Your task to perform on an android device: Go to location settings Image 0: 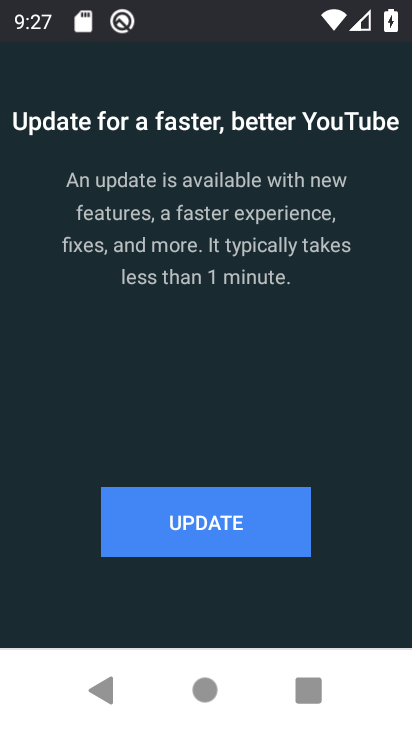
Step 0: drag from (315, 514) to (322, 165)
Your task to perform on an android device: Go to location settings Image 1: 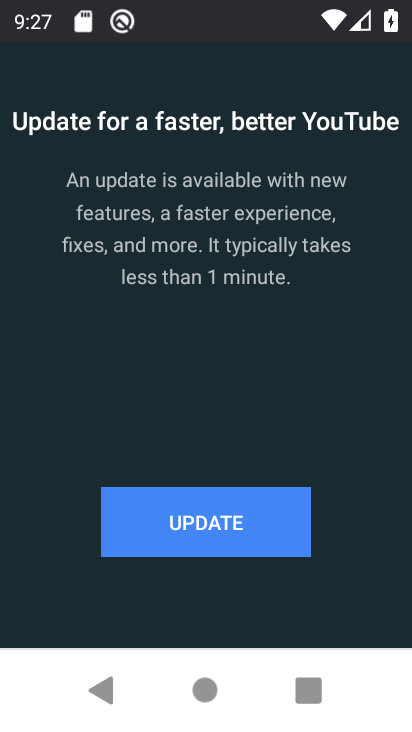
Step 1: press home button
Your task to perform on an android device: Go to location settings Image 2: 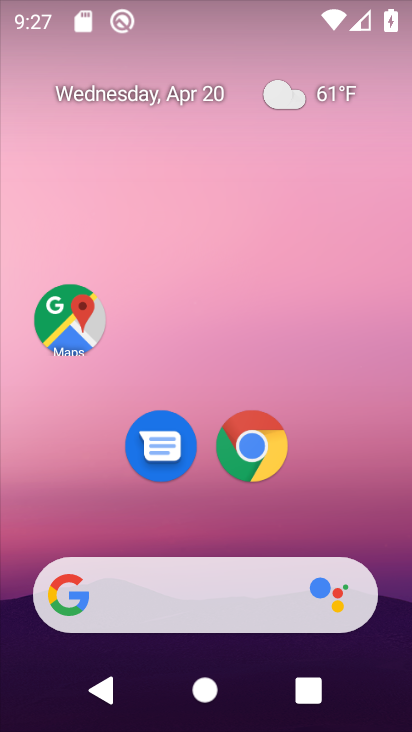
Step 2: drag from (360, 480) to (329, 33)
Your task to perform on an android device: Go to location settings Image 3: 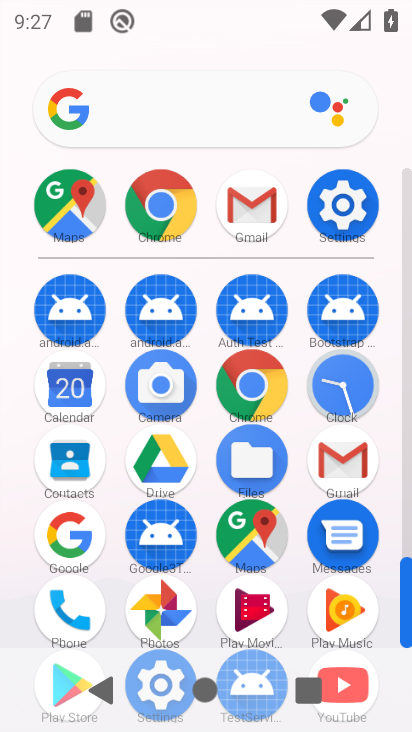
Step 3: click (344, 215)
Your task to perform on an android device: Go to location settings Image 4: 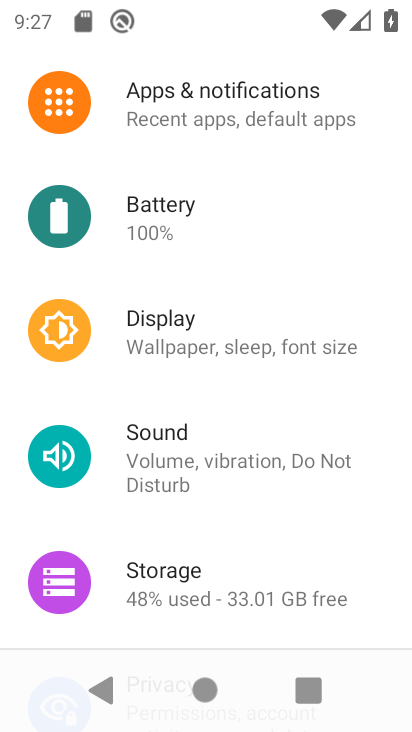
Step 4: drag from (293, 500) to (289, 241)
Your task to perform on an android device: Go to location settings Image 5: 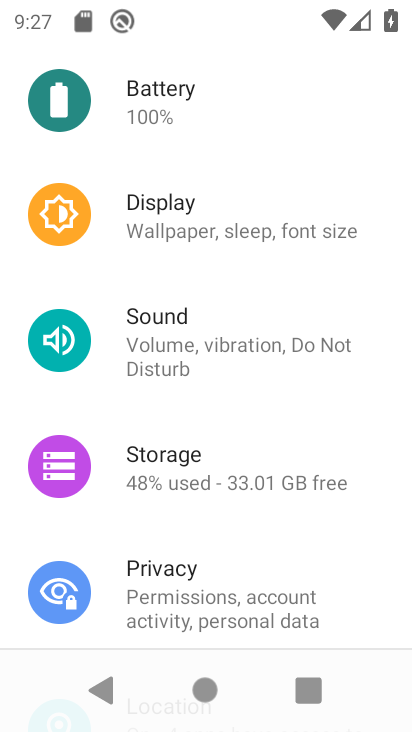
Step 5: drag from (270, 519) to (277, 272)
Your task to perform on an android device: Go to location settings Image 6: 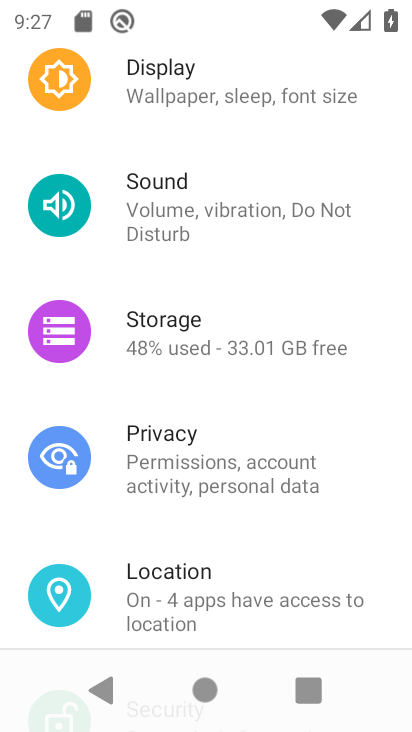
Step 6: drag from (336, 571) to (311, 333)
Your task to perform on an android device: Go to location settings Image 7: 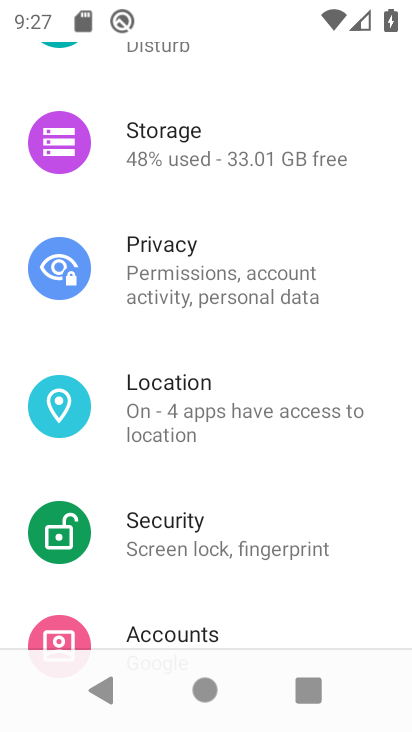
Step 7: click (274, 426)
Your task to perform on an android device: Go to location settings Image 8: 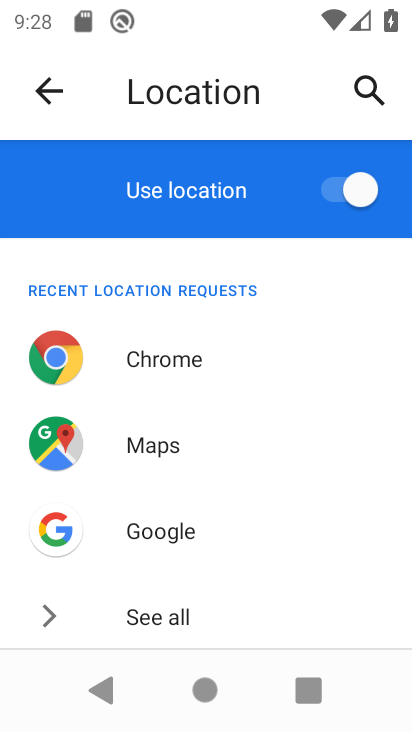
Step 8: task complete